Your task to perform on an android device: change alarm snooze length Image 0: 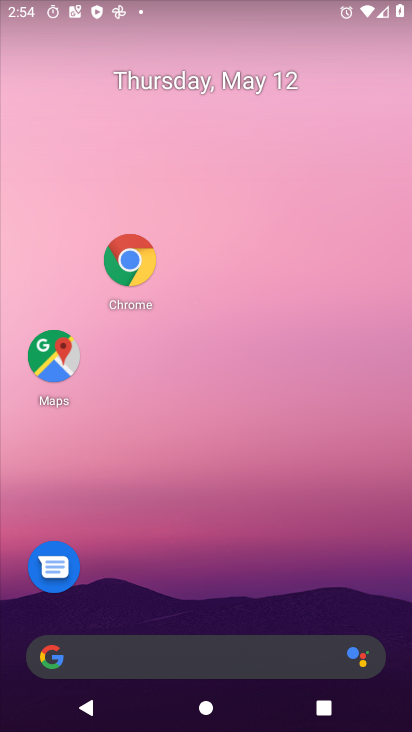
Step 0: drag from (322, 625) to (282, 308)
Your task to perform on an android device: change alarm snooze length Image 1: 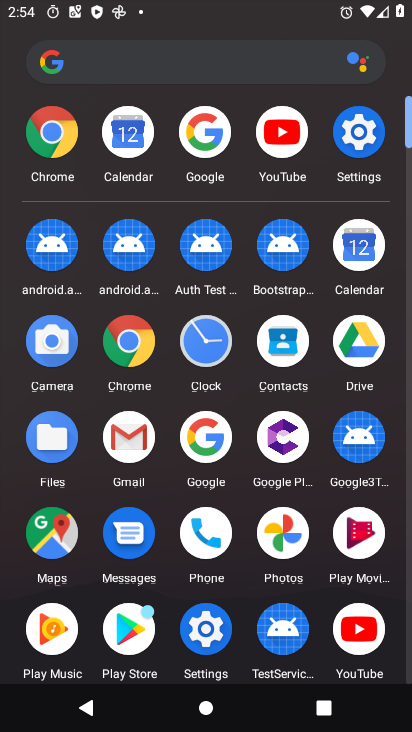
Step 1: click (214, 335)
Your task to perform on an android device: change alarm snooze length Image 2: 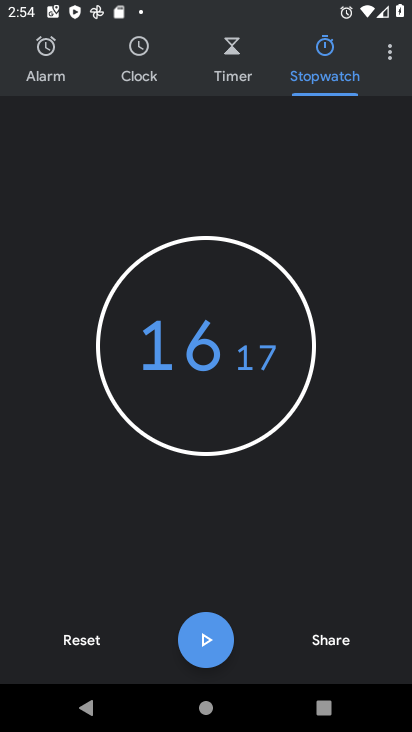
Step 2: click (391, 53)
Your task to perform on an android device: change alarm snooze length Image 3: 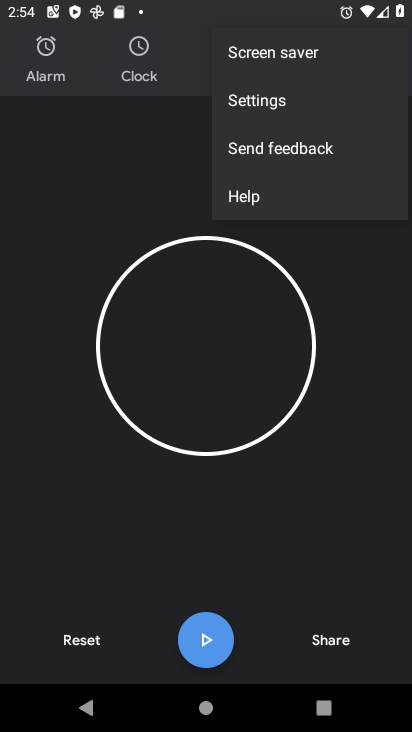
Step 3: click (266, 103)
Your task to perform on an android device: change alarm snooze length Image 4: 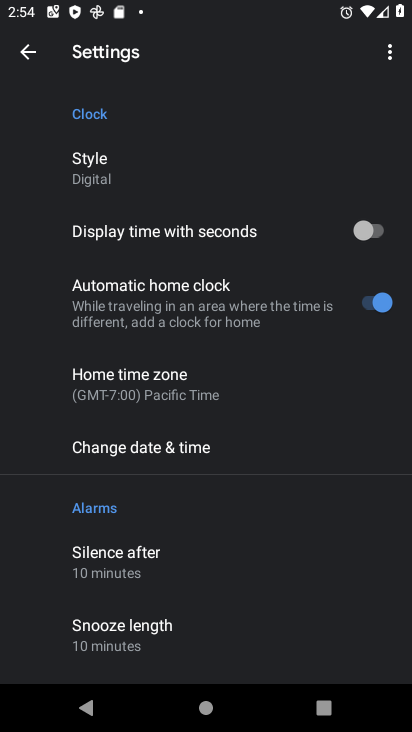
Step 4: drag from (193, 624) to (202, 273)
Your task to perform on an android device: change alarm snooze length Image 5: 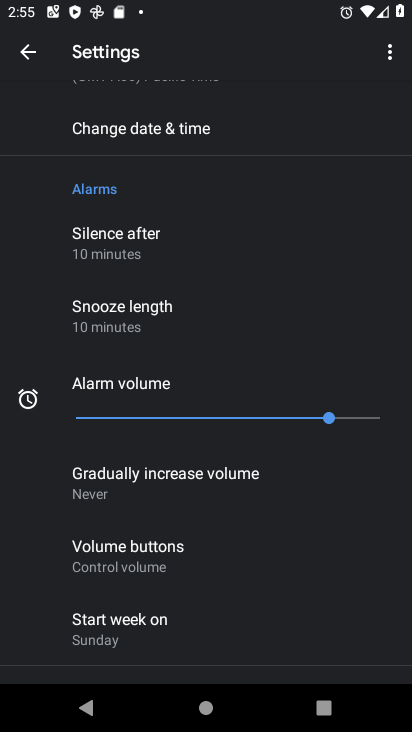
Step 5: click (136, 329)
Your task to perform on an android device: change alarm snooze length Image 6: 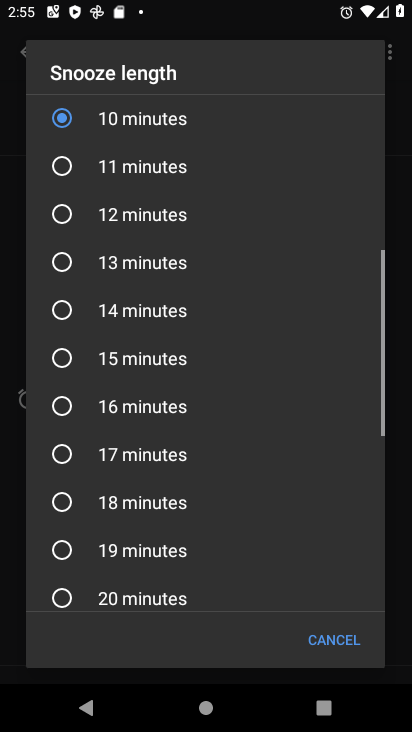
Step 6: click (143, 366)
Your task to perform on an android device: change alarm snooze length Image 7: 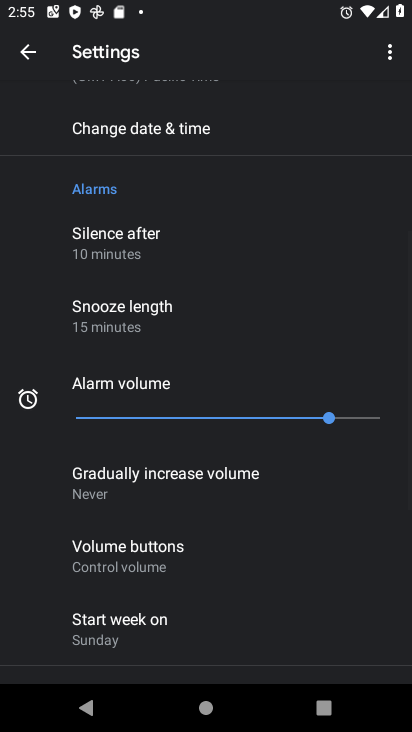
Step 7: task complete